Your task to perform on an android device: show emergency info Image 0: 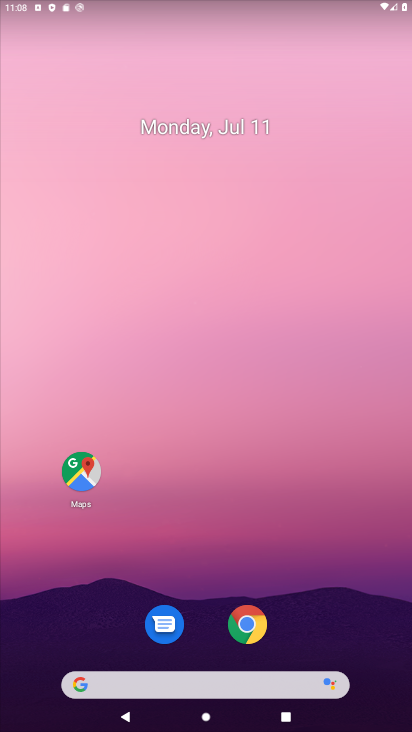
Step 0: drag from (213, 641) to (218, 265)
Your task to perform on an android device: show emergency info Image 1: 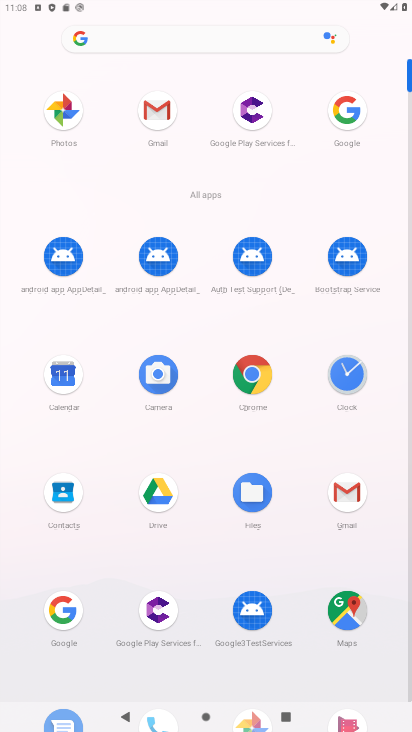
Step 1: drag from (214, 544) to (259, 211)
Your task to perform on an android device: show emergency info Image 2: 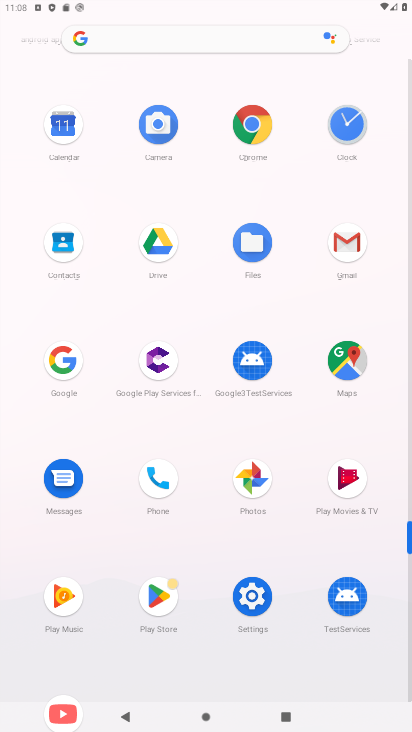
Step 2: click (243, 587)
Your task to perform on an android device: show emergency info Image 3: 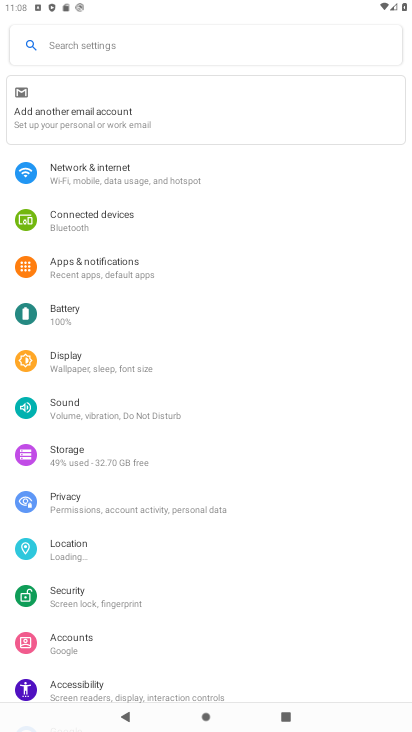
Step 3: drag from (191, 570) to (197, 155)
Your task to perform on an android device: show emergency info Image 4: 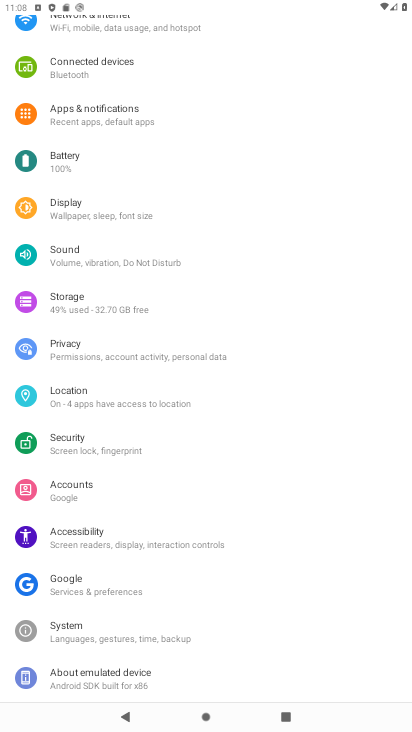
Step 4: click (124, 679)
Your task to perform on an android device: show emergency info Image 5: 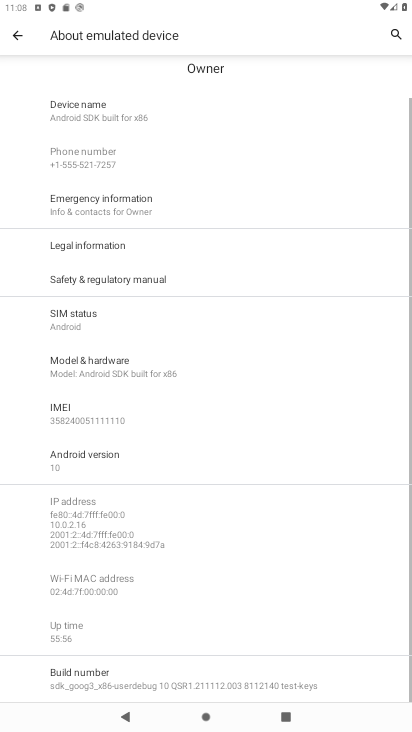
Step 5: click (168, 215)
Your task to perform on an android device: show emergency info Image 6: 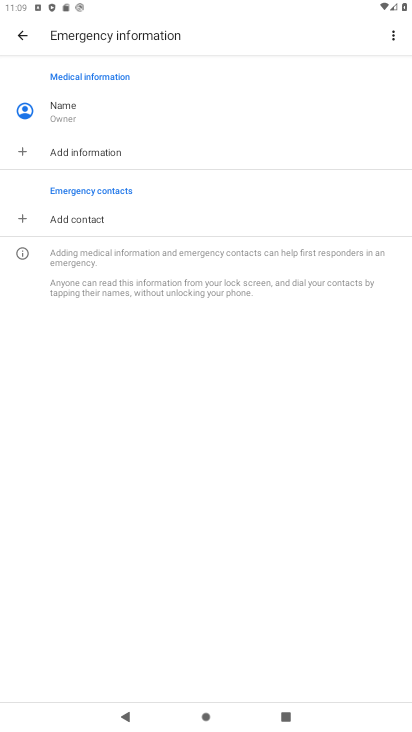
Step 6: task complete